Your task to perform on an android device: turn on translation in the chrome app Image 0: 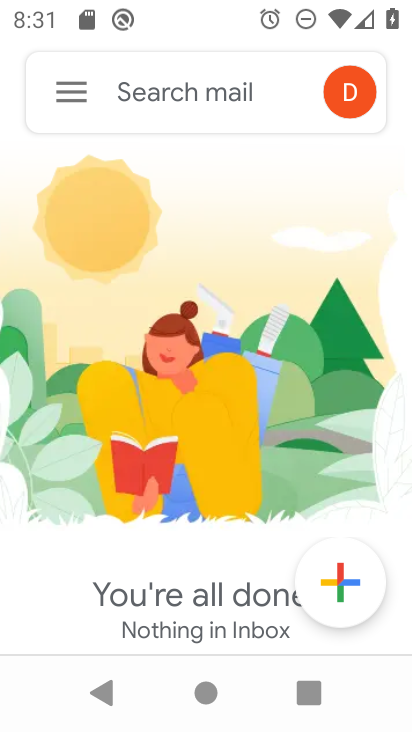
Step 0: press home button
Your task to perform on an android device: turn on translation in the chrome app Image 1: 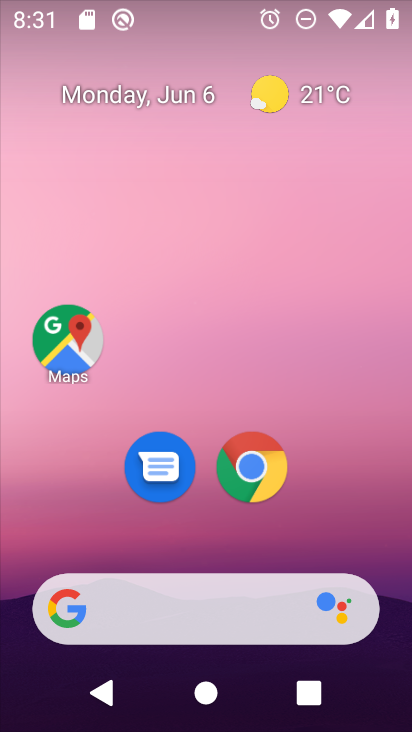
Step 1: drag from (359, 532) to (368, 143)
Your task to perform on an android device: turn on translation in the chrome app Image 2: 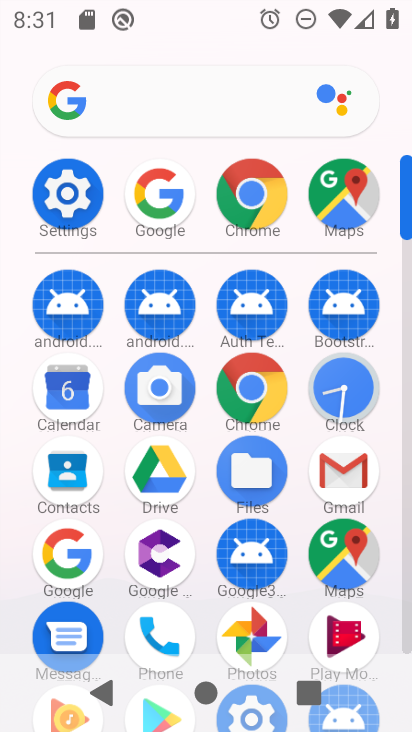
Step 2: click (257, 207)
Your task to perform on an android device: turn on translation in the chrome app Image 3: 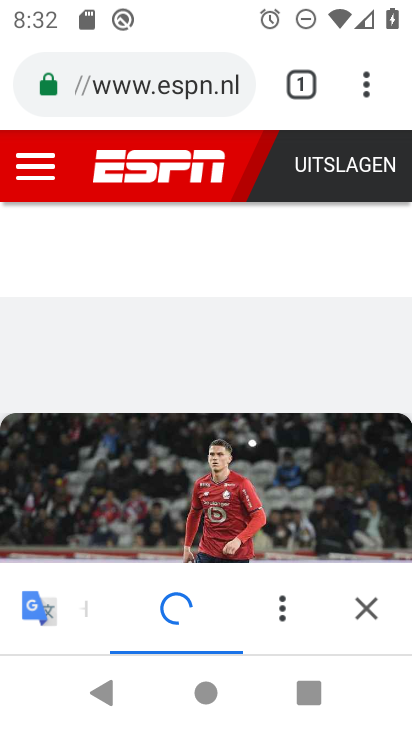
Step 3: click (365, 98)
Your task to perform on an android device: turn on translation in the chrome app Image 4: 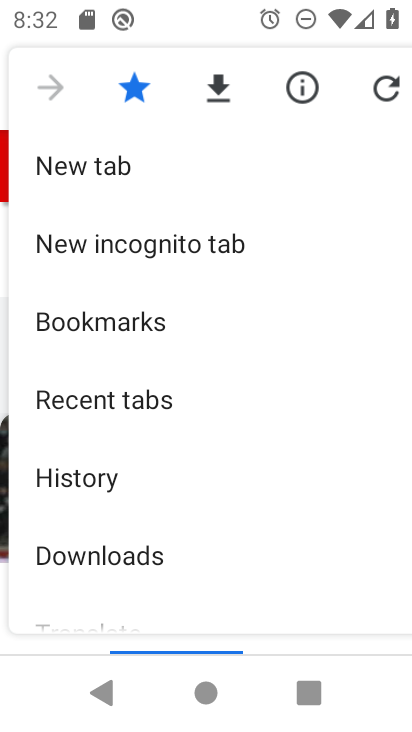
Step 4: drag from (308, 403) to (320, 320)
Your task to perform on an android device: turn on translation in the chrome app Image 5: 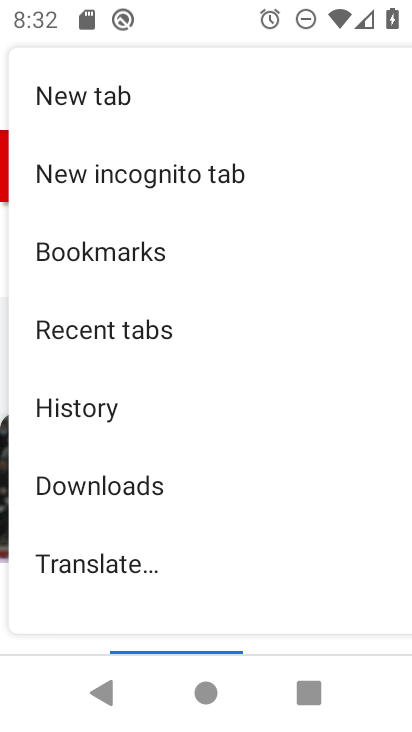
Step 5: drag from (320, 436) to (312, 319)
Your task to perform on an android device: turn on translation in the chrome app Image 6: 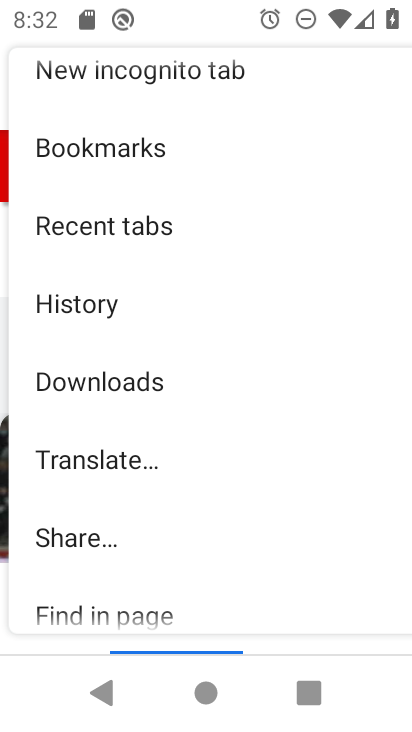
Step 6: drag from (288, 482) to (284, 390)
Your task to perform on an android device: turn on translation in the chrome app Image 7: 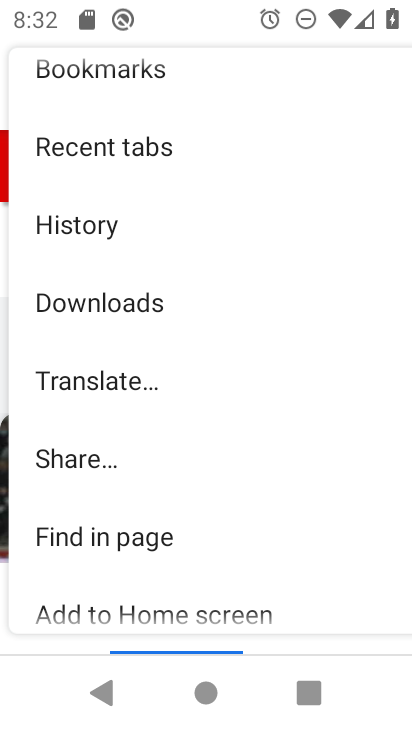
Step 7: drag from (292, 443) to (307, 327)
Your task to perform on an android device: turn on translation in the chrome app Image 8: 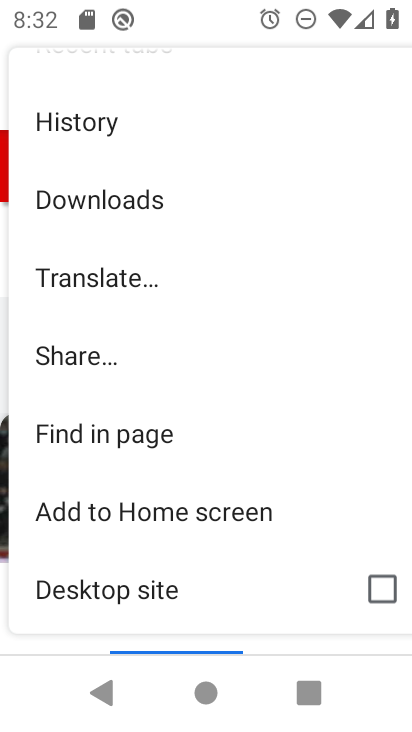
Step 8: drag from (294, 536) to (320, 347)
Your task to perform on an android device: turn on translation in the chrome app Image 9: 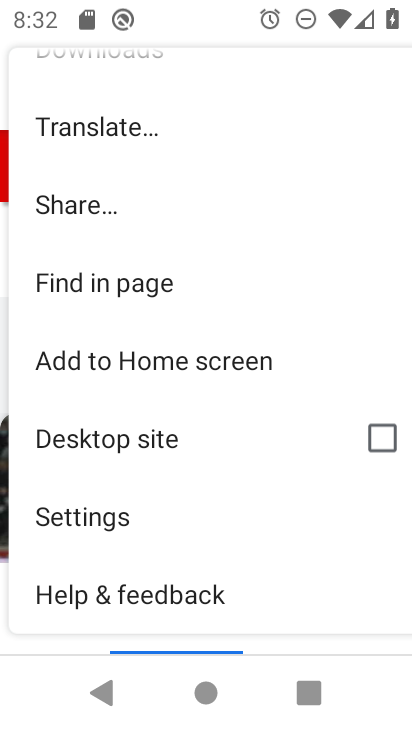
Step 9: click (123, 527)
Your task to perform on an android device: turn on translation in the chrome app Image 10: 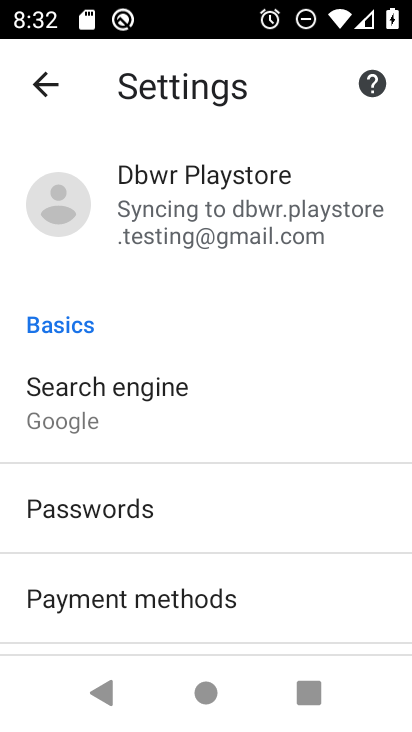
Step 10: drag from (351, 510) to (350, 406)
Your task to perform on an android device: turn on translation in the chrome app Image 11: 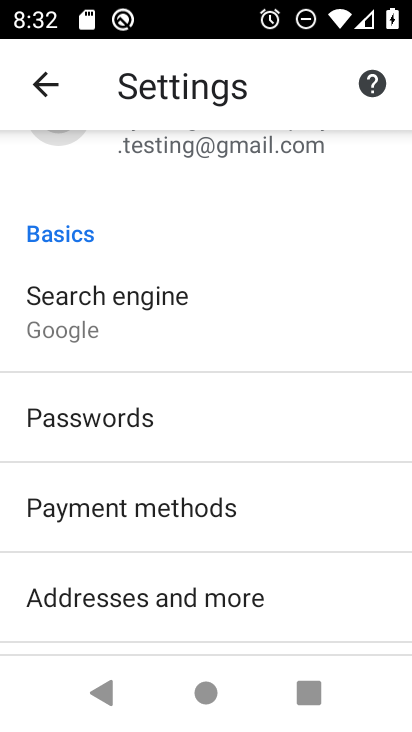
Step 11: drag from (337, 556) to (357, 382)
Your task to perform on an android device: turn on translation in the chrome app Image 12: 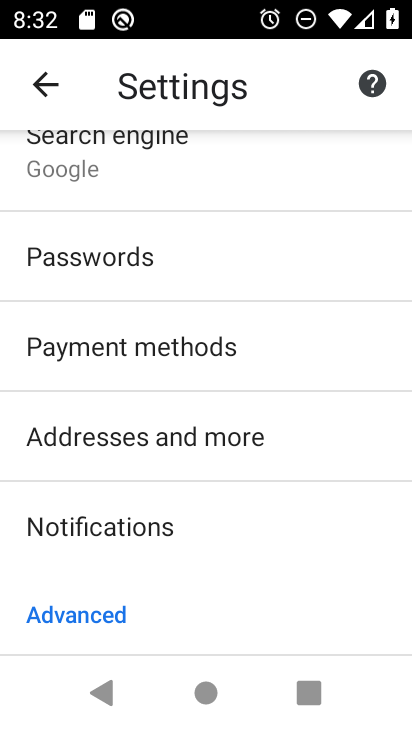
Step 12: drag from (320, 525) to (345, 296)
Your task to perform on an android device: turn on translation in the chrome app Image 13: 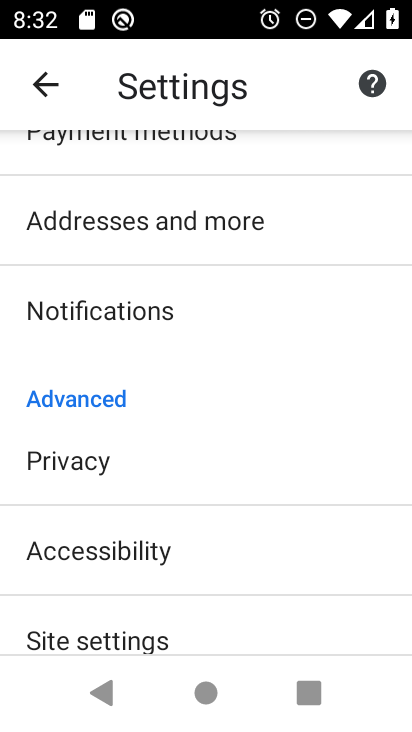
Step 13: drag from (316, 551) to (315, 352)
Your task to perform on an android device: turn on translation in the chrome app Image 14: 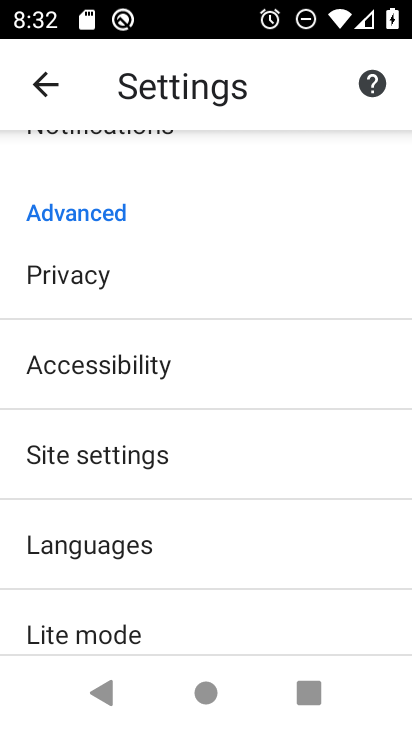
Step 14: click (231, 540)
Your task to perform on an android device: turn on translation in the chrome app Image 15: 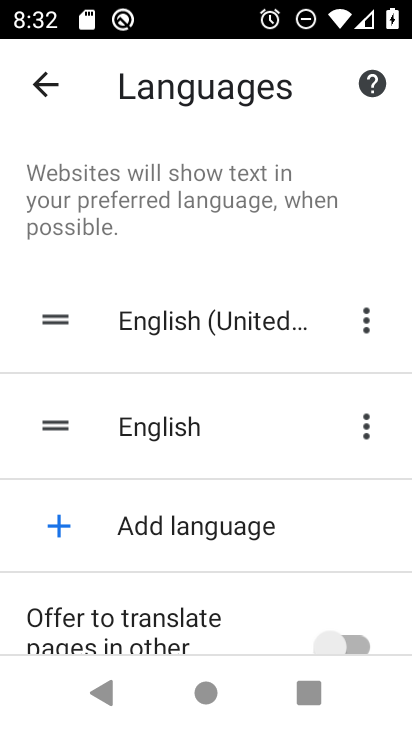
Step 15: drag from (239, 563) to (266, 362)
Your task to perform on an android device: turn on translation in the chrome app Image 16: 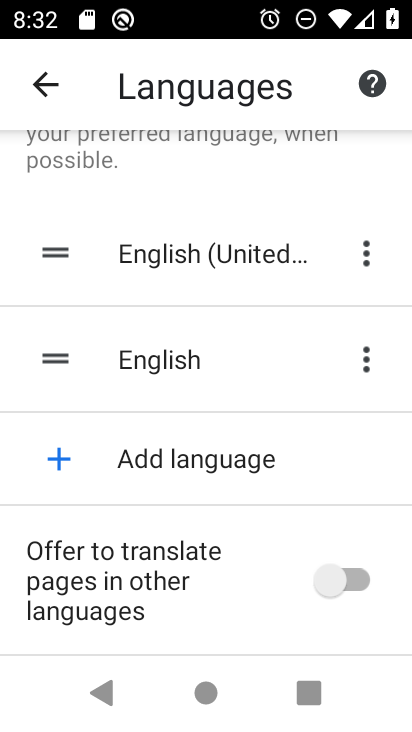
Step 16: click (340, 588)
Your task to perform on an android device: turn on translation in the chrome app Image 17: 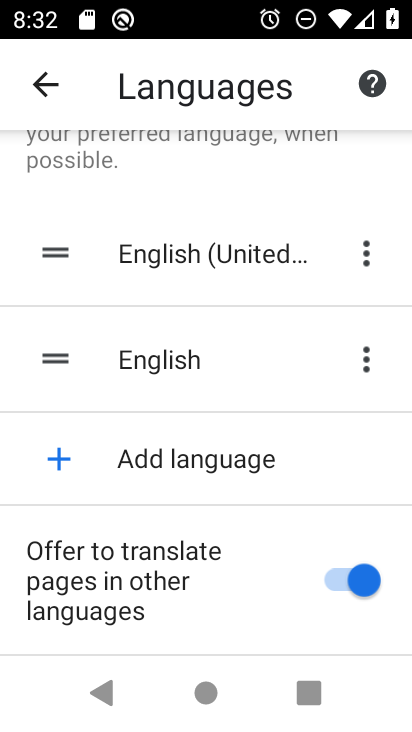
Step 17: task complete